Your task to perform on an android device: refresh tabs in the chrome app Image 0: 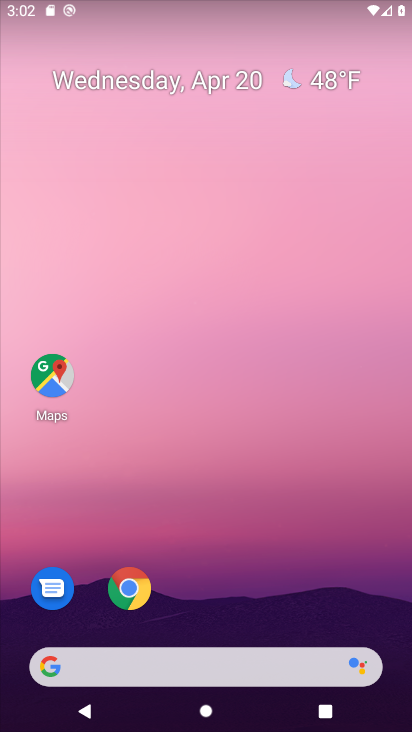
Step 0: drag from (303, 595) to (325, 160)
Your task to perform on an android device: refresh tabs in the chrome app Image 1: 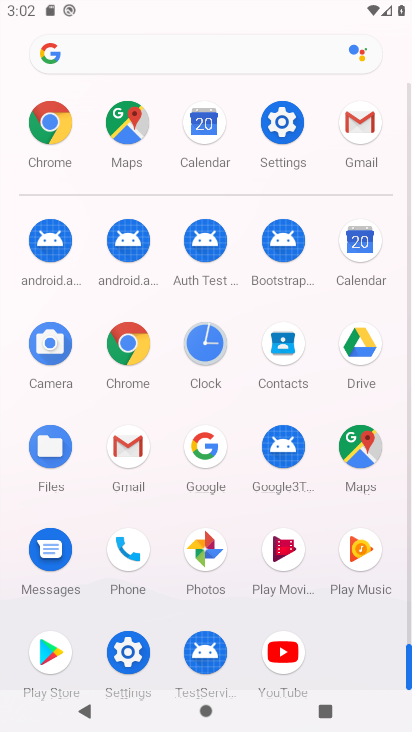
Step 1: click (135, 348)
Your task to perform on an android device: refresh tabs in the chrome app Image 2: 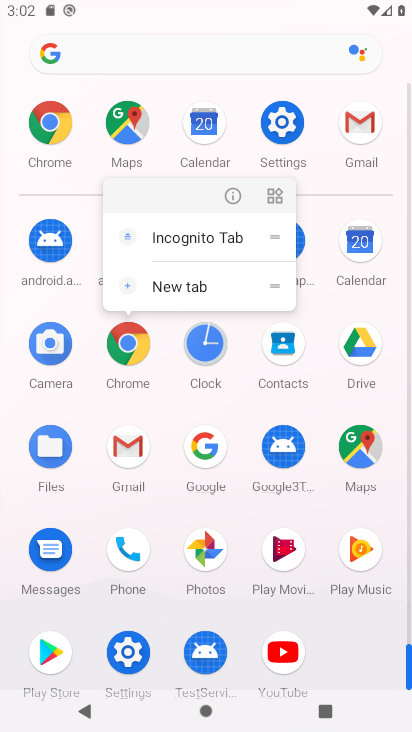
Step 2: click (110, 352)
Your task to perform on an android device: refresh tabs in the chrome app Image 3: 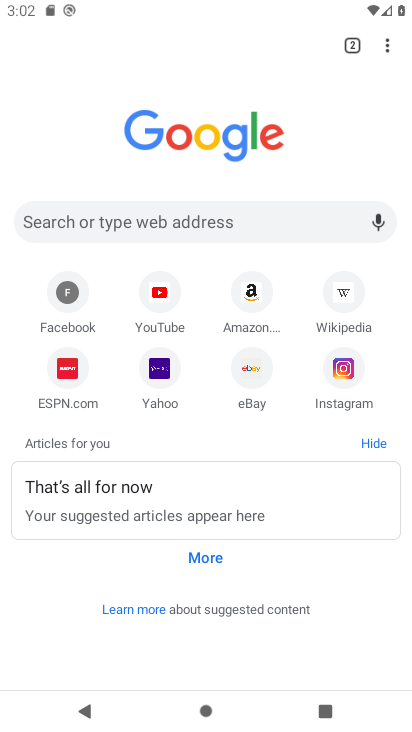
Step 3: click (390, 38)
Your task to perform on an android device: refresh tabs in the chrome app Image 4: 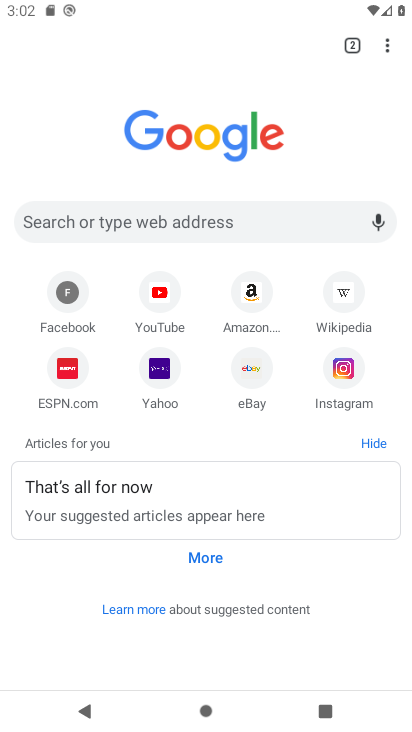
Step 4: click (383, 46)
Your task to perform on an android device: refresh tabs in the chrome app Image 5: 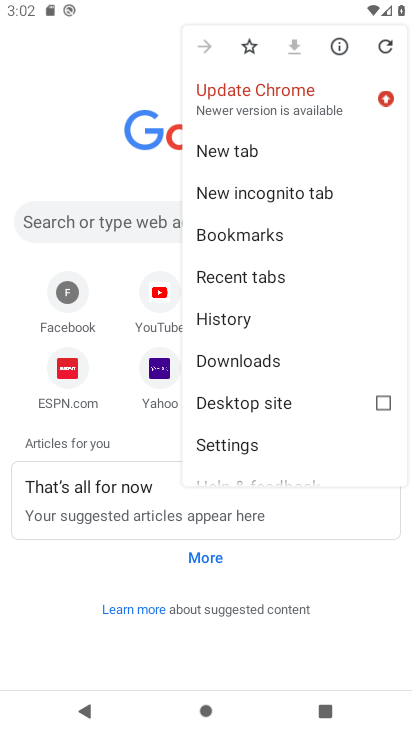
Step 5: click (381, 51)
Your task to perform on an android device: refresh tabs in the chrome app Image 6: 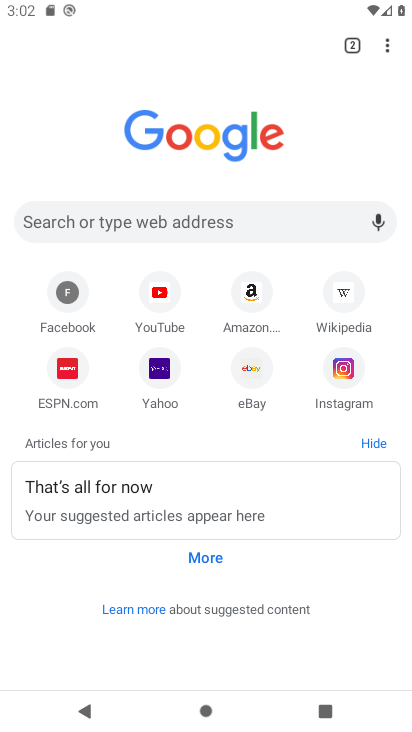
Step 6: task complete